Your task to perform on an android device: Show me the alarms in the clock app Image 0: 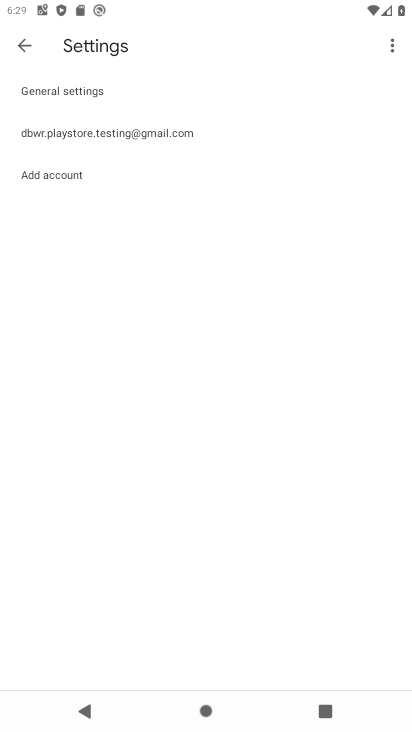
Step 0: press home button
Your task to perform on an android device: Show me the alarms in the clock app Image 1: 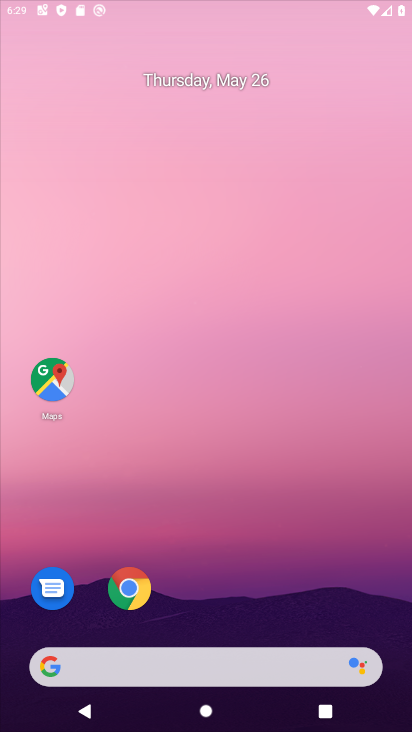
Step 1: drag from (386, 657) to (280, 41)
Your task to perform on an android device: Show me the alarms in the clock app Image 2: 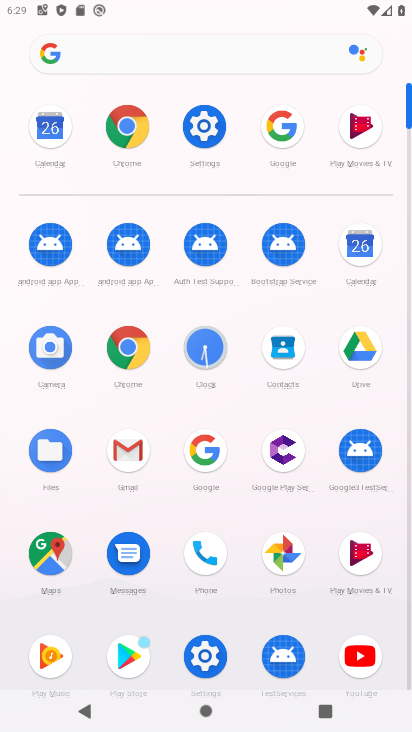
Step 2: click (208, 347)
Your task to perform on an android device: Show me the alarms in the clock app Image 3: 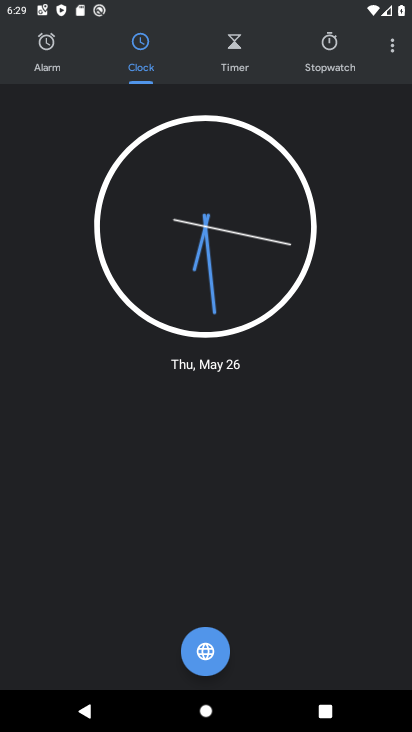
Step 3: click (35, 58)
Your task to perform on an android device: Show me the alarms in the clock app Image 4: 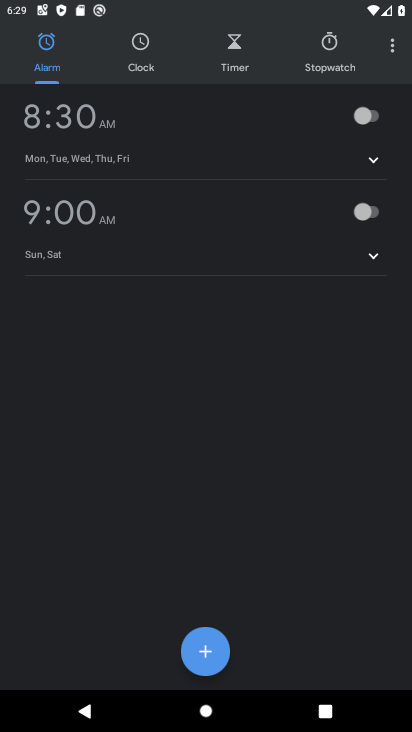
Step 4: task complete